Your task to perform on an android device: Open Reddit.com Image 0: 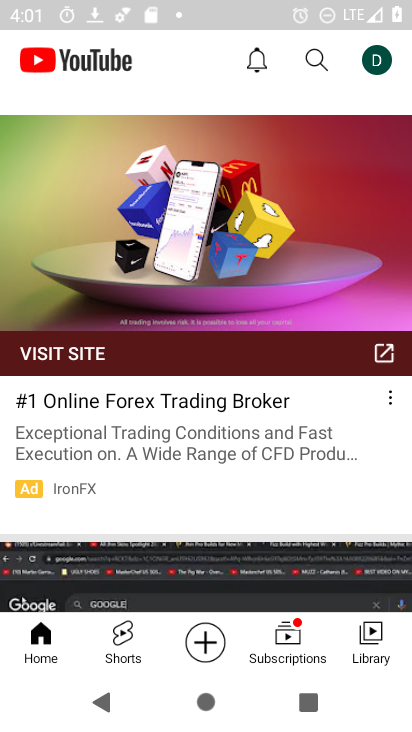
Step 0: press home button
Your task to perform on an android device: Open Reddit.com Image 1: 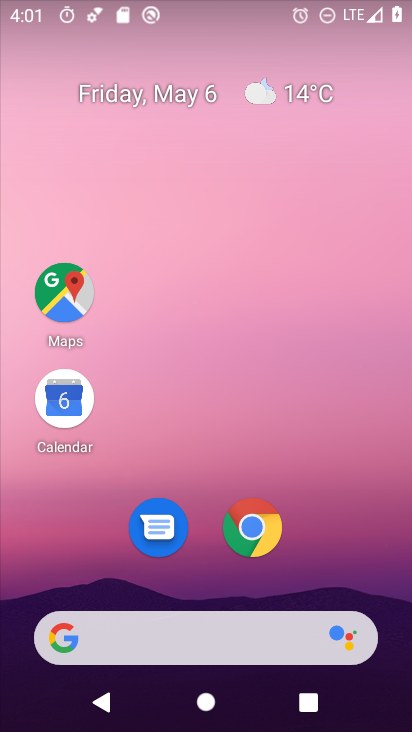
Step 1: click (227, 526)
Your task to perform on an android device: Open Reddit.com Image 2: 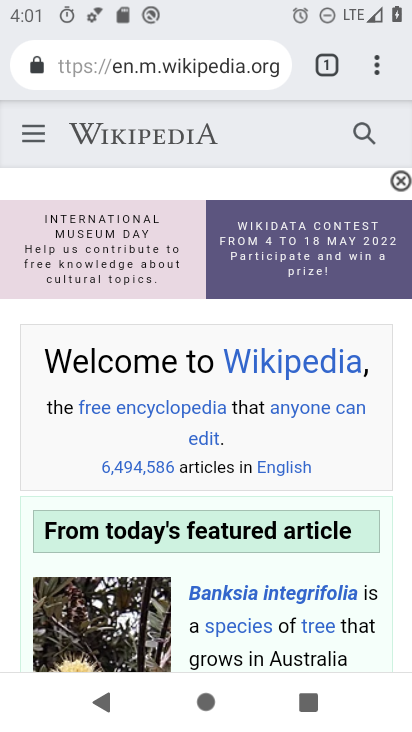
Step 2: click (199, 65)
Your task to perform on an android device: Open Reddit.com Image 3: 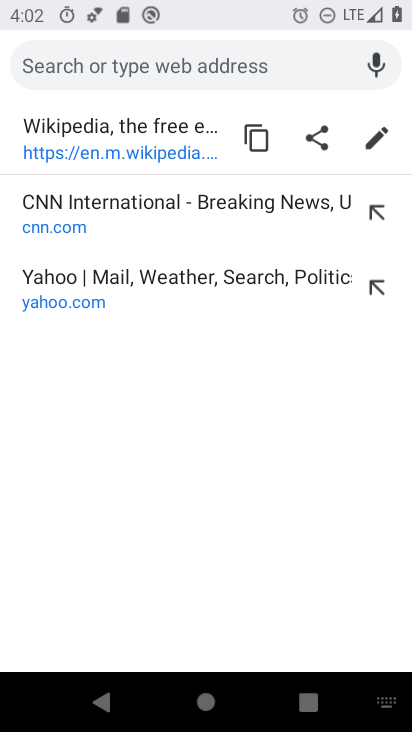
Step 3: type "rreddit.com"
Your task to perform on an android device: Open Reddit.com Image 4: 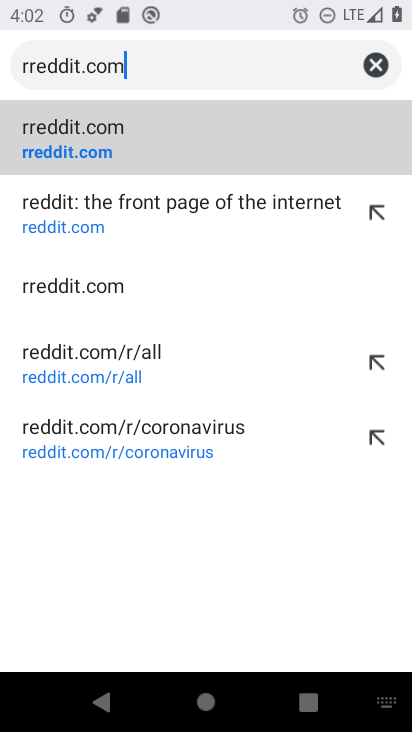
Step 4: click (109, 220)
Your task to perform on an android device: Open Reddit.com Image 5: 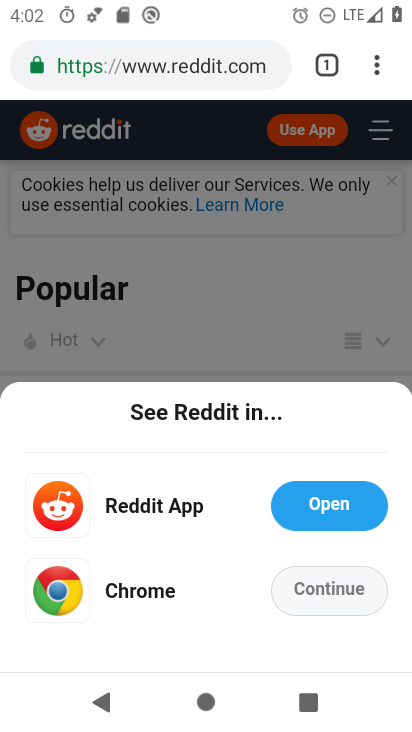
Step 5: click (325, 582)
Your task to perform on an android device: Open Reddit.com Image 6: 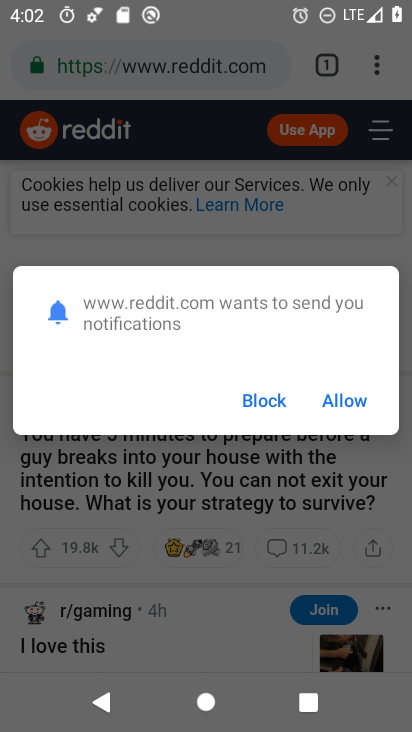
Step 6: click (245, 408)
Your task to perform on an android device: Open Reddit.com Image 7: 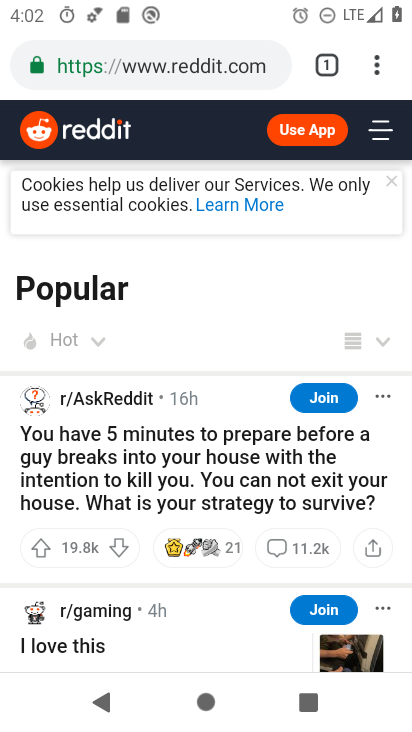
Step 7: task complete